Your task to perform on an android device: install app "Spotify: Music and Podcasts" Image 0: 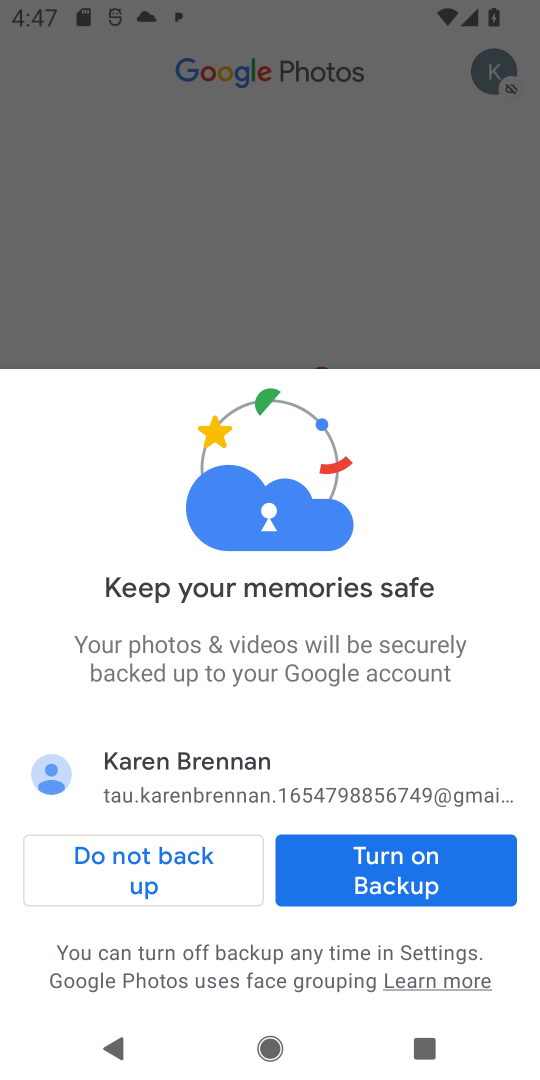
Step 0: press back button
Your task to perform on an android device: install app "Spotify: Music and Podcasts" Image 1: 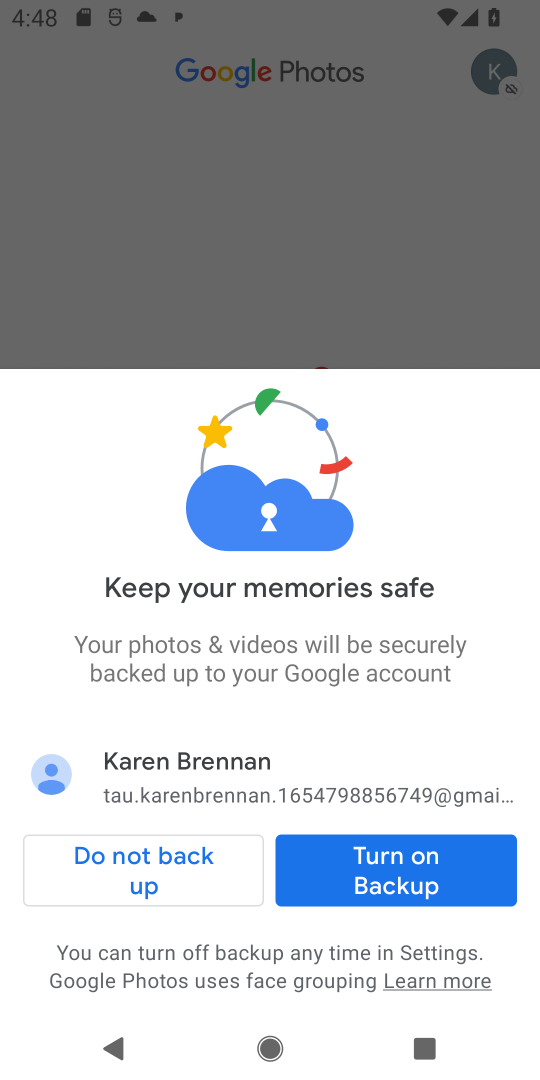
Step 1: press back button
Your task to perform on an android device: install app "Spotify: Music and Podcasts" Image 2: 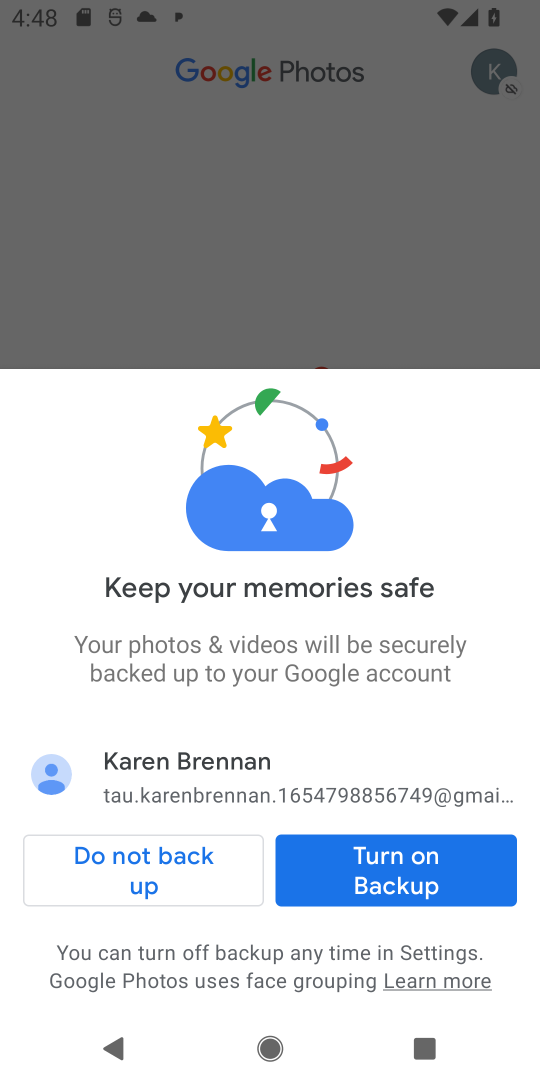
Step 2: press home button
Your task to perform on an android device: install app "Spotify: Music and Podcasts" Image 3: 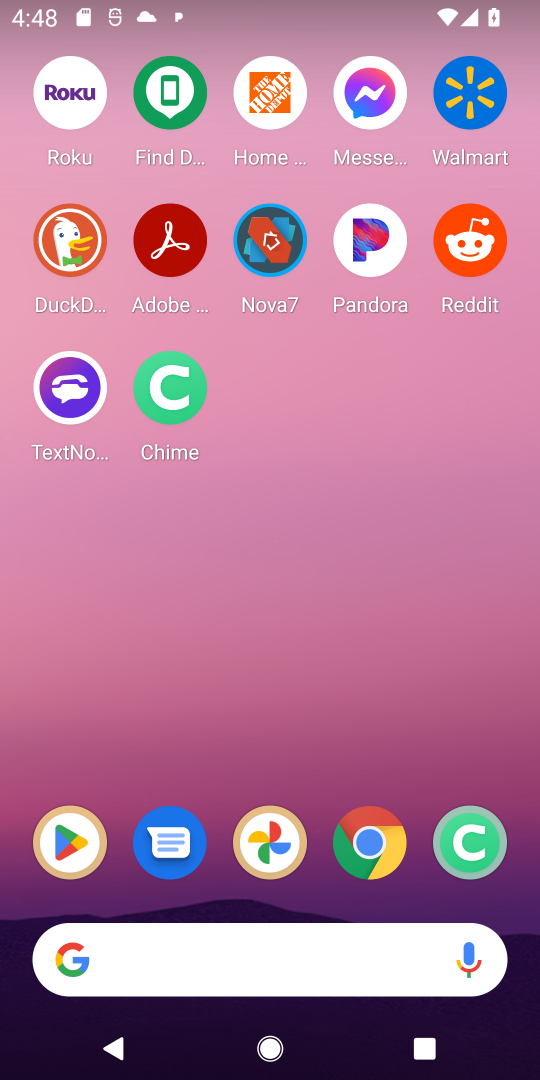
Step 3: click (72, 832)
Your task to perform on an android device: install app "Spotify: Music and Podcasts" Image 4: 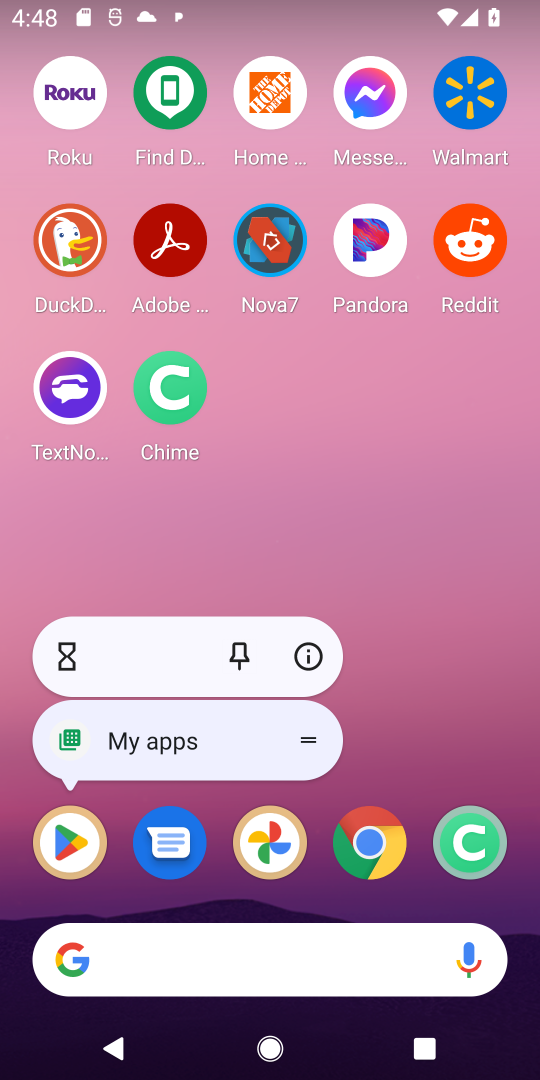
Step 4: click (78, 846)
Your task to perform on an android device: install app "Spotify: Music and Podcasts" Image 5: 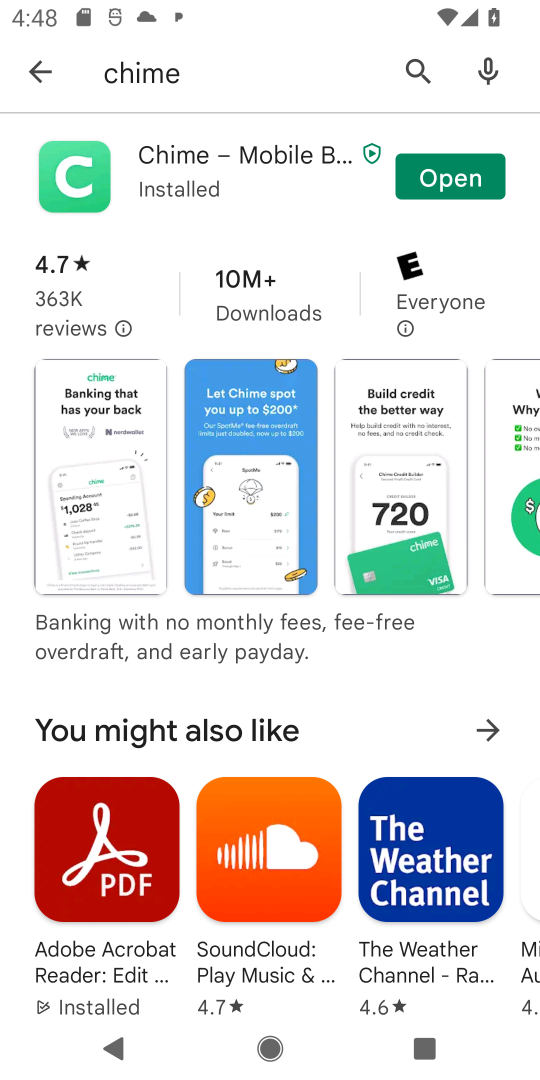
Step 5: click (426, 76)
Your task to perform on an android device: install app "Spotify: Music and Podcasts" Image 6: 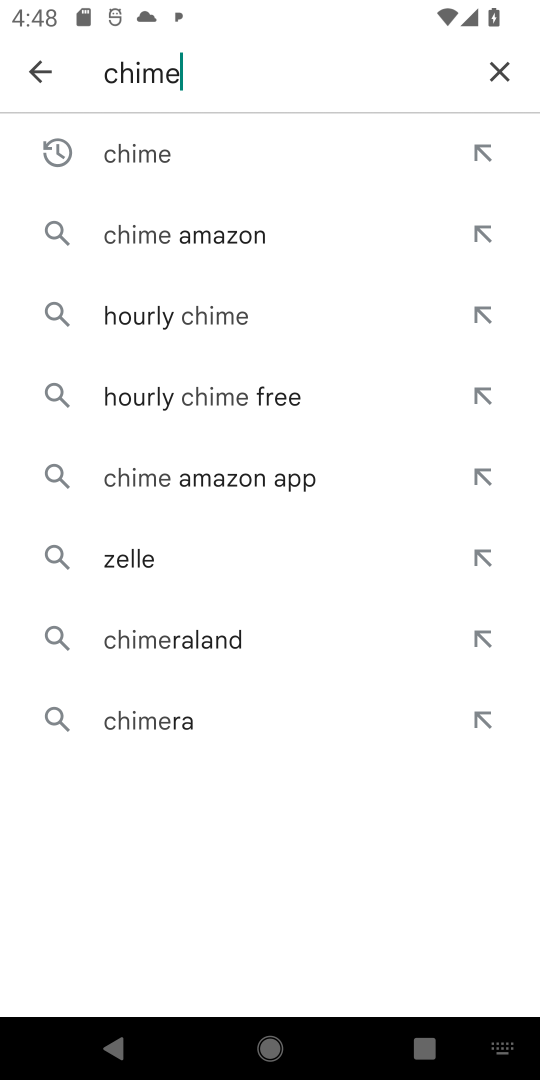
Step 6: click (495, 55)
Your task to perform on an android device: install app "Spotify: Music and Podcasts" Image 7: 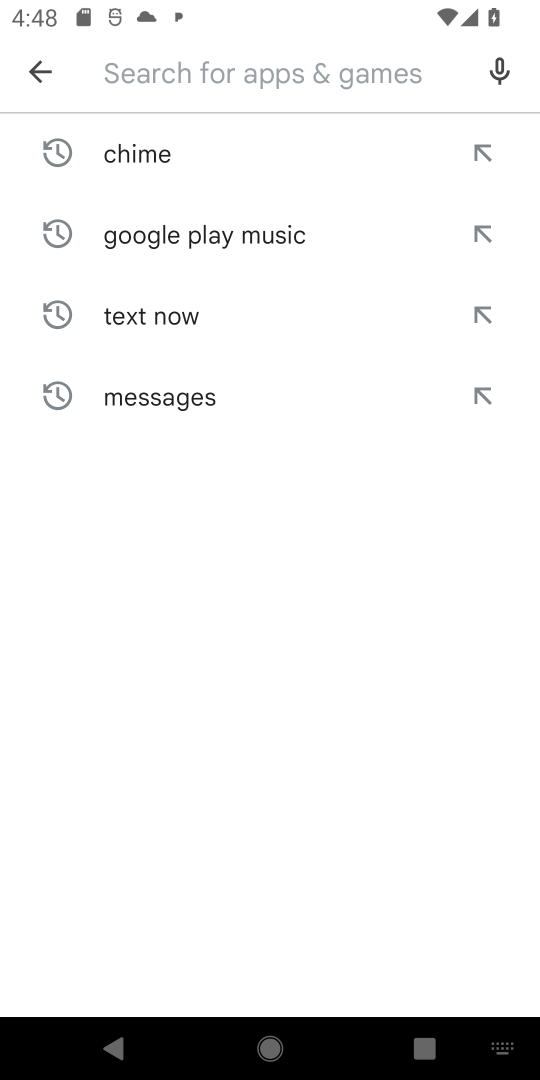
Step 7: click (250, 68)
Your task to perform on an android device: install app "Spotify: Music and Podcasts" Image 8: 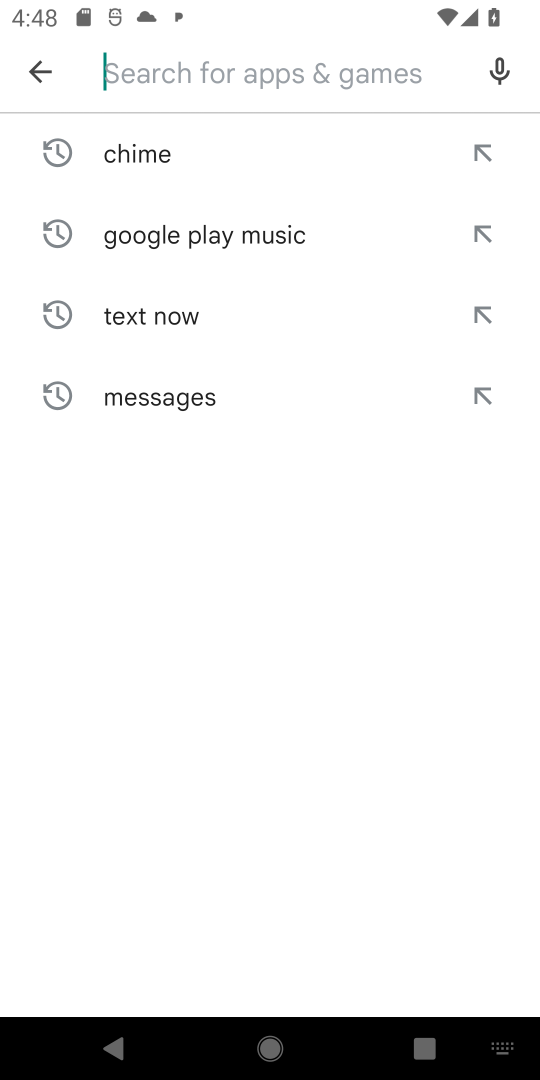
Step 8: type "spotify"
Your task to perform on an android device: install app "Spotify: Music and Podcasts" Image 9: 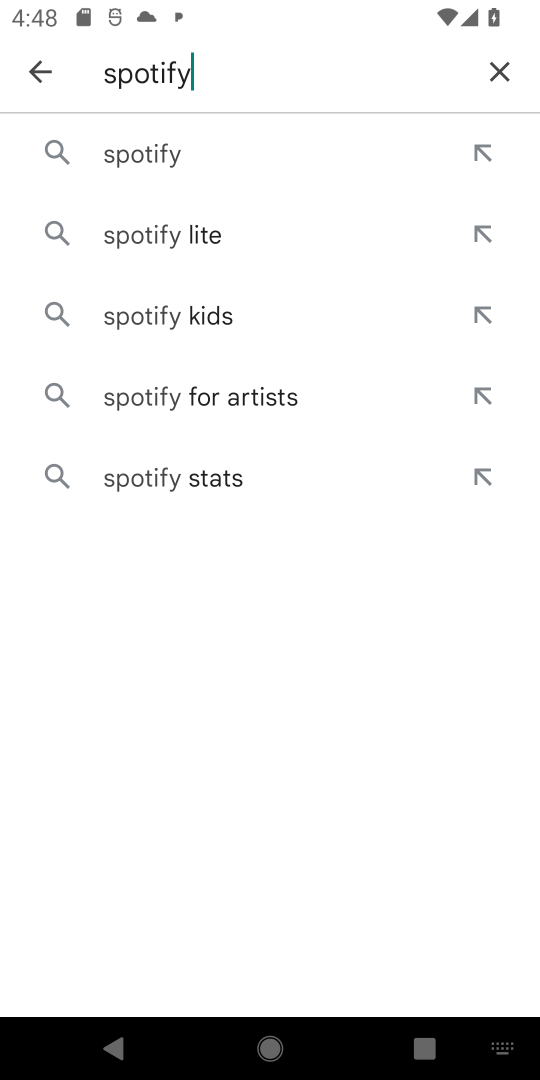
Step 9: click (145, 136)
Your task to perform on an android device: install app "Spotify: Music and Podcasts" Image 10: 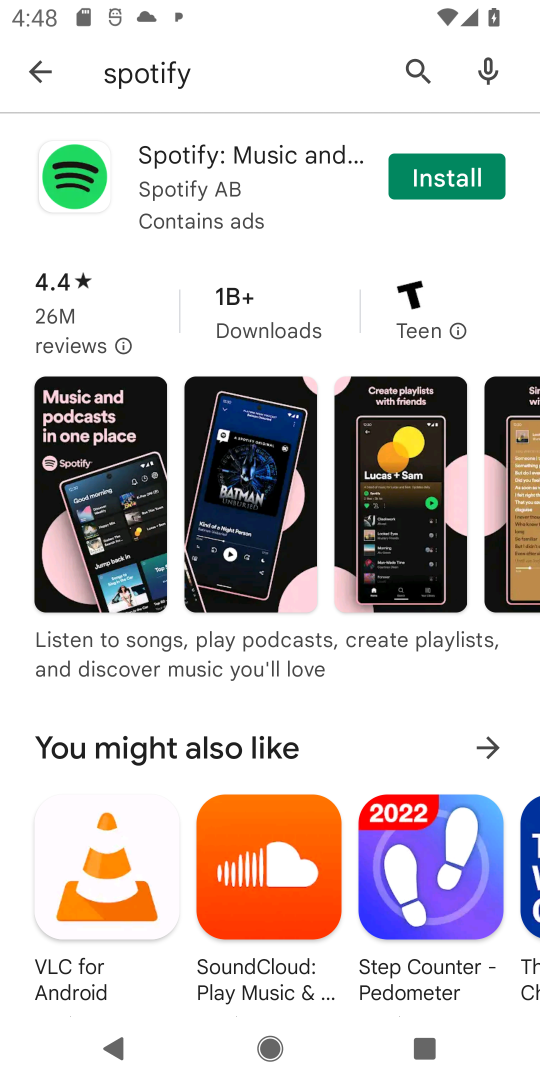
Step 10: click (451, 171)
Your task to perform on an android device: install app "Spotify: Music and Podcasts" Image 11: 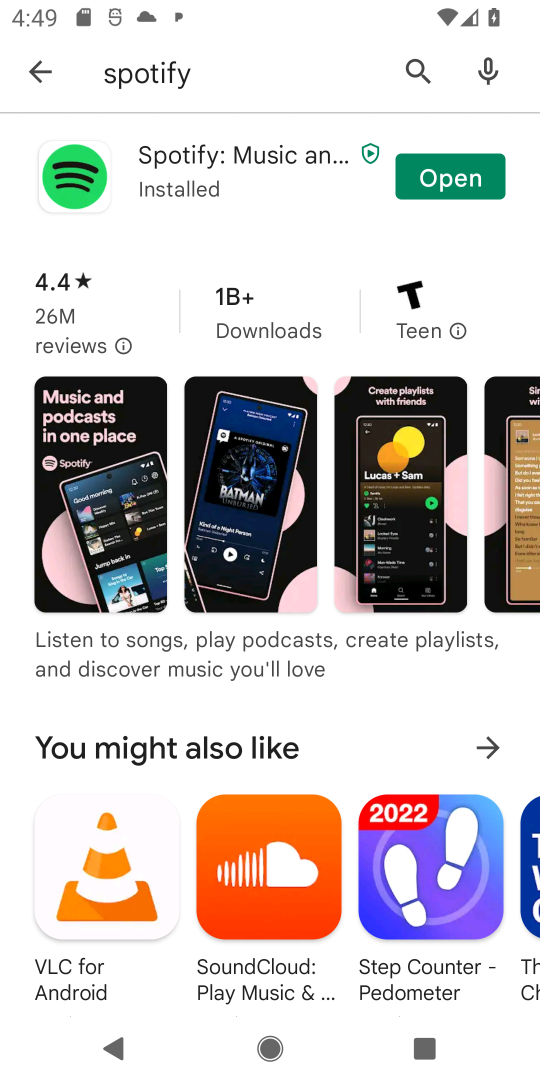
Step 11: click (448, 168)
Your task to perform on an android device: install app "Spotify: Music and Podcasts" Image 12: 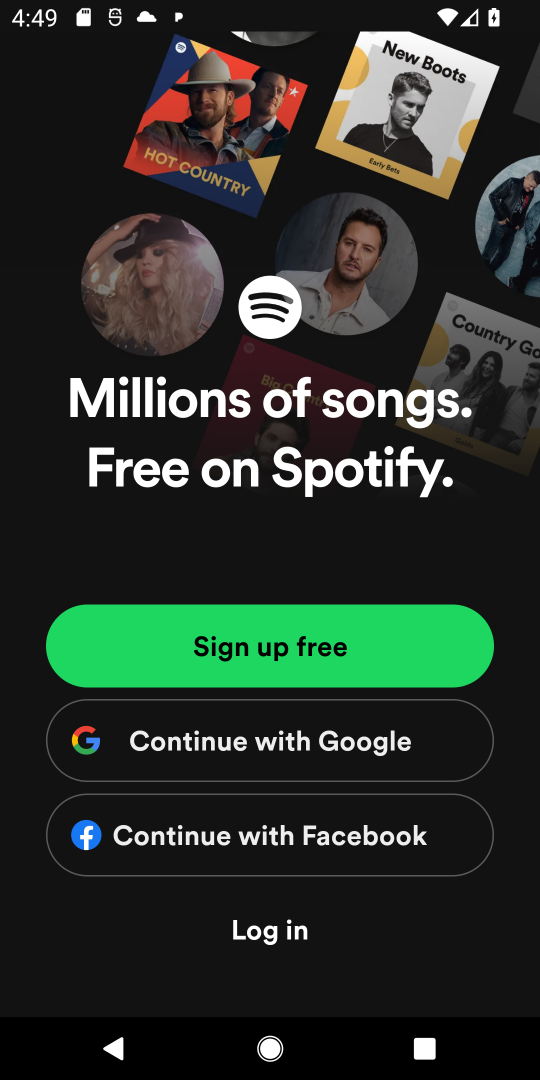
Step 12: task complete